Your task to perform on an android device: read, delete, or share a saved page in the chrome app Image 0: 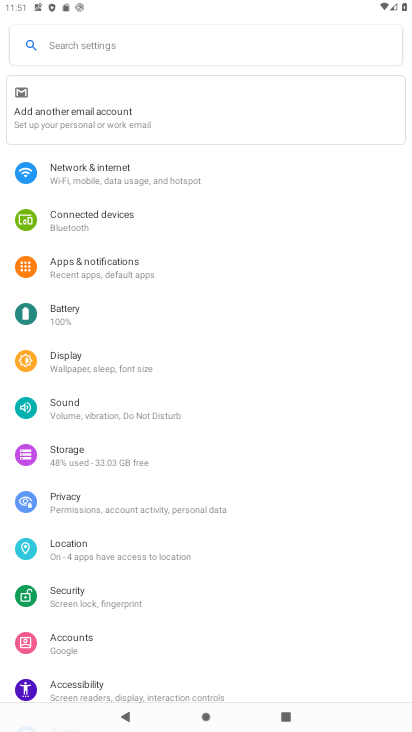
Step 0: press home button
Your task to perform on an android device: read, delete, or share a saved page in the chrome app Image 1: 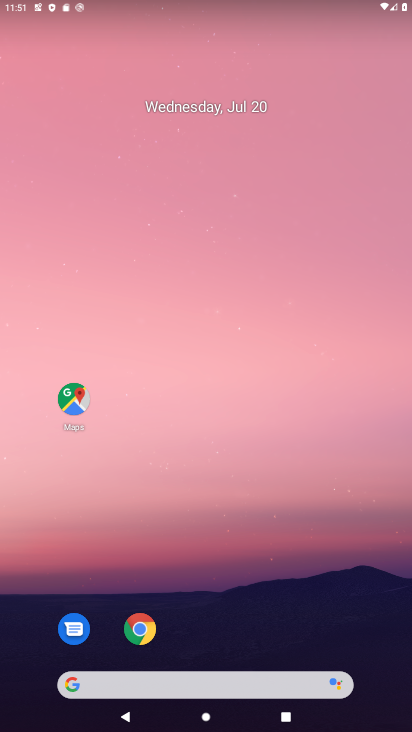
Step 1: click (130, 625)
Your task to perform on an android device: read, delete, or share a saved page in the chrome app Image 2: 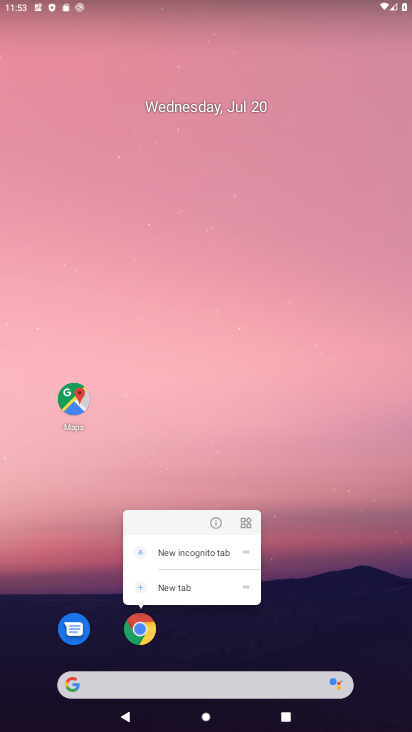
Step 2: click (136, 628)
Your task to perform on an android device: read, delete, or share a saved page in the chrome app Image 3: 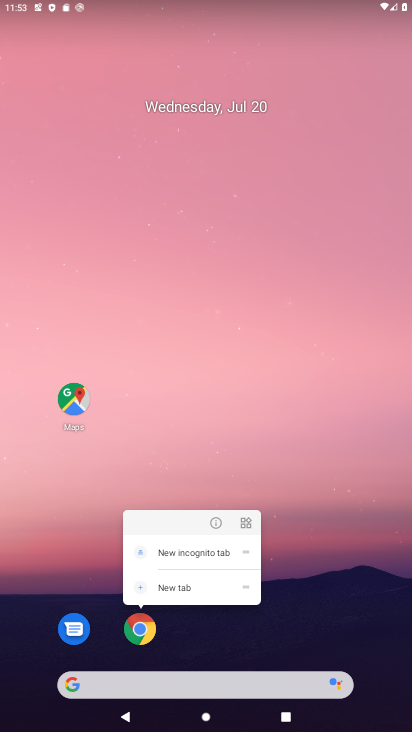
Step 3: click (136, 628)
Your task to perform on an android device: read, delete, or share a saved page in the chrome app Image 4: 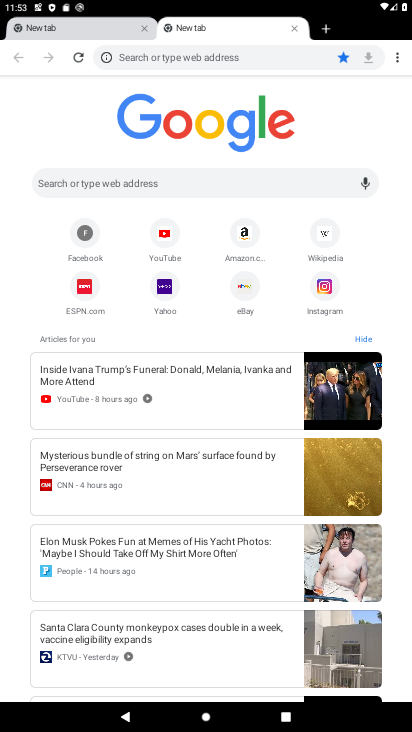
Step 4: click (404, 59)
Your task to perform on an android device: read, delete, or share a saved page in the chrome app Image 5: 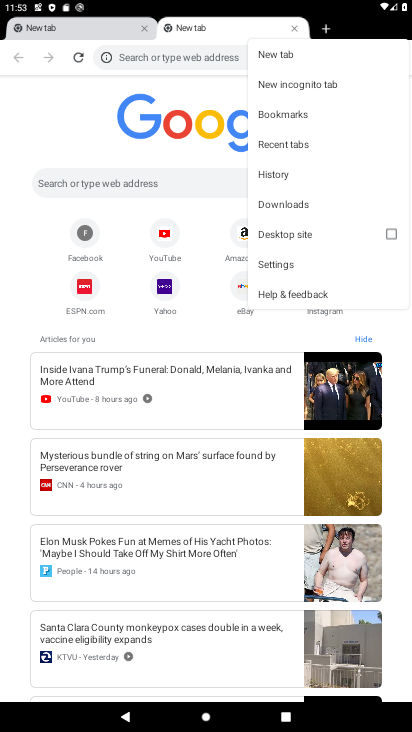
Step 5: click (290, 268)
Your task to perform on an android device: read, delete, or share a saved page in the chrome app Image 6: 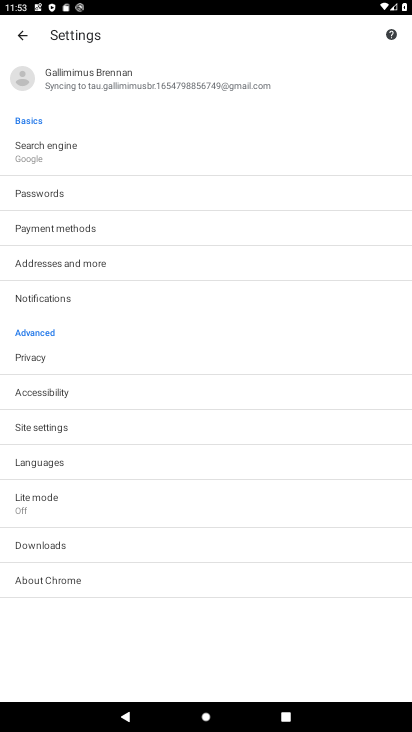
Step 6: task complete